Your task to perform on an android device: Go to privacy settings Image 0: 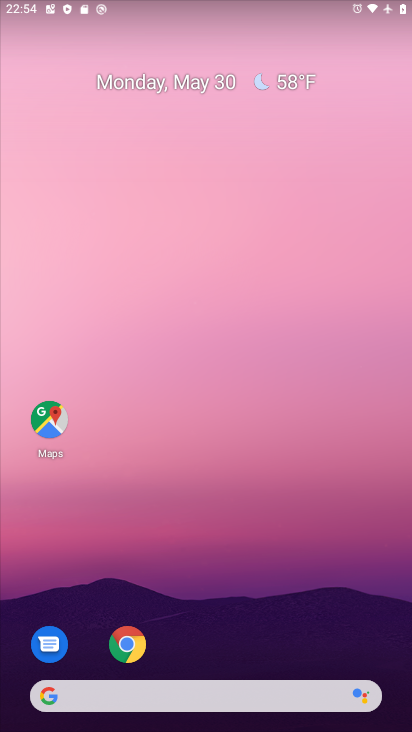
Step 0: drag from (372, 658) to (283, 350)
Your task to perform on an android device: Go to privacy settings Image 1: 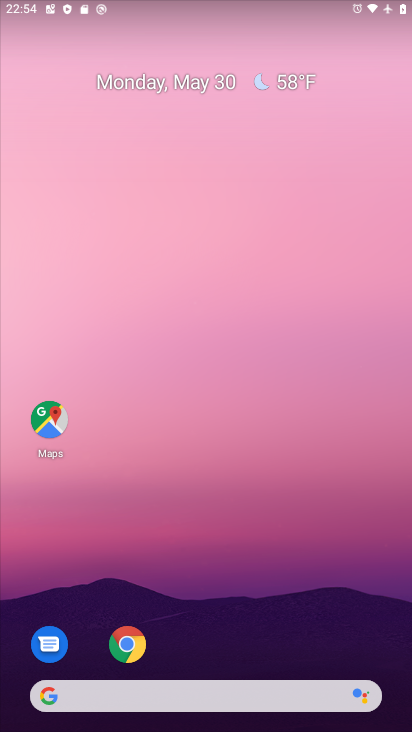
Step 1: drag from (329, 657) to (259, 32)
Your task to perform on an android device: Go to privacy settings Image 2: 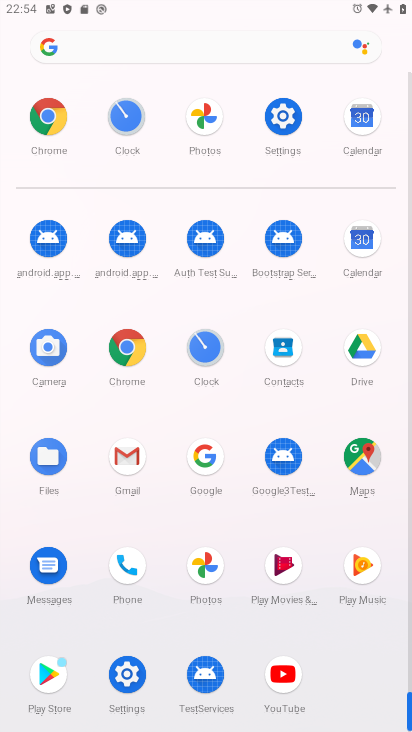
Step 2: click (126, 674)
Your task to perform on an android device: Go to privacy settings Image 3: 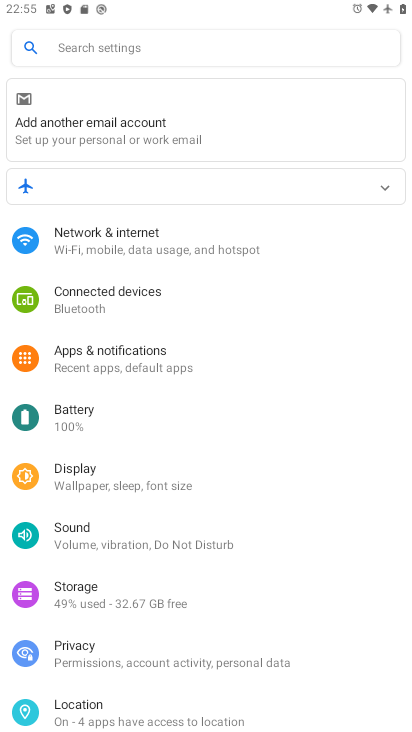
Step 3: drag from (261, 643) to (254, 395)
Your task to perform on an android device: Go to privacy settings Image 4: 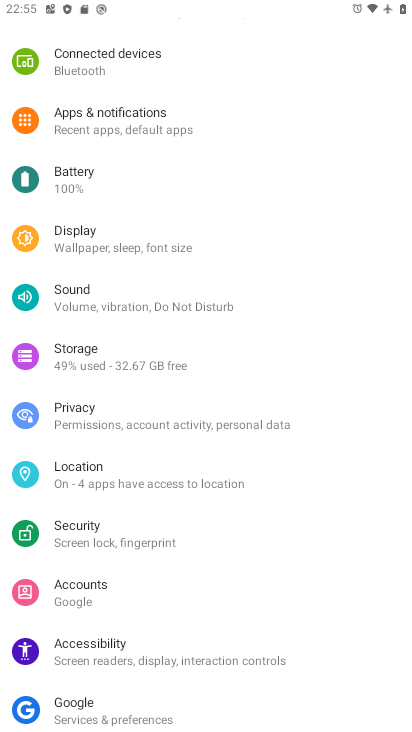
Step 4: click (72, 417)
Your task to perform on an android device: Go to privacy settings Image 5: 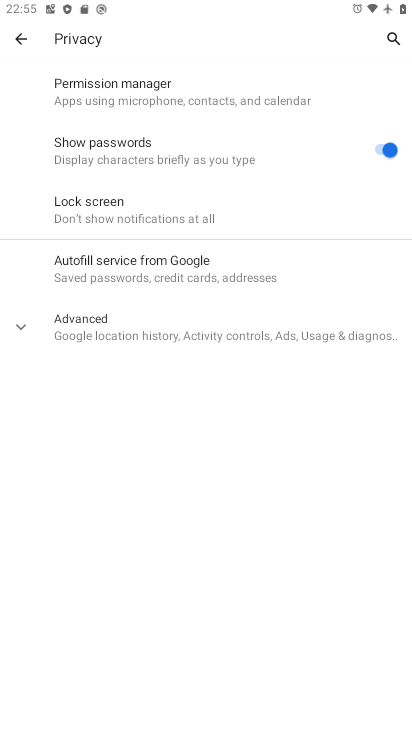
Step 5: click (26, 321)
Your task to perform on an android device: Go to privacy settings Image 6: 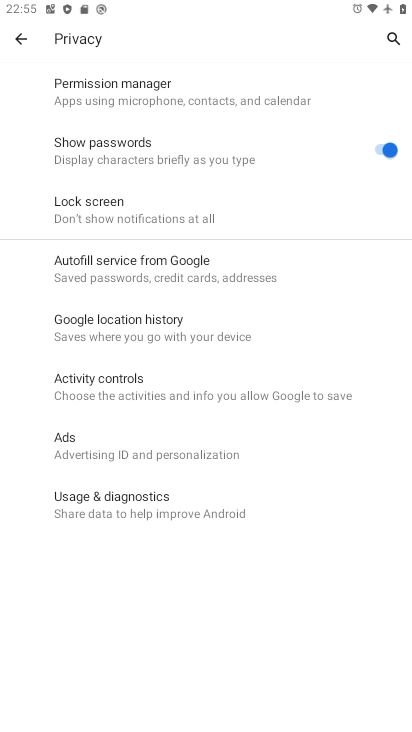
Step 6: task complete